Your task to perform on an android device: Open the Play Movies app and select the watchlist tab. Image 0: 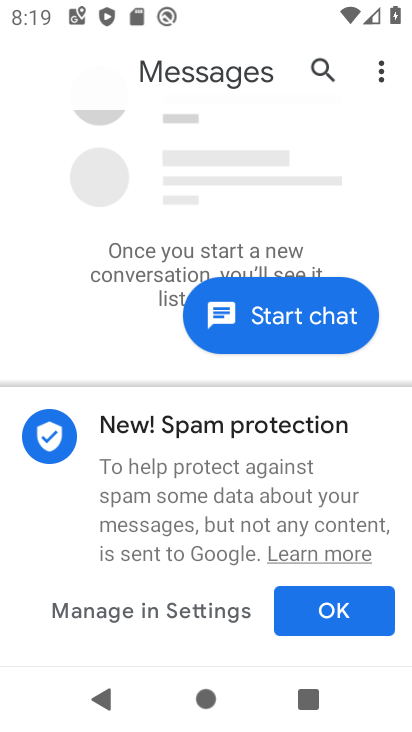
Step 0: press home button
Your task to perform on an android device: Open the Play Movies app and select the watchlist tab. Image 1: 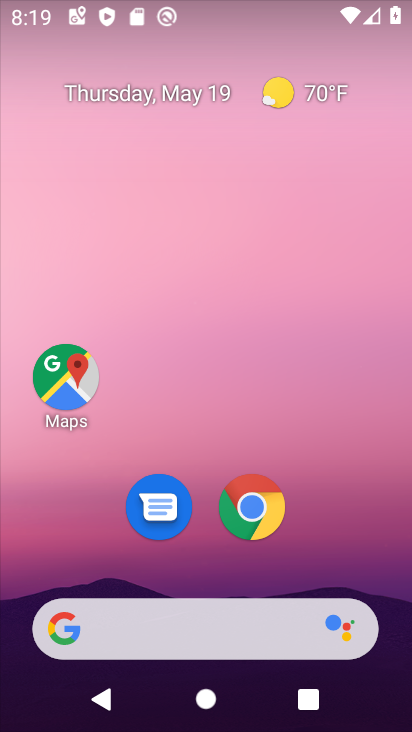
Step 1: drag from (188, 575) to (213, 202)
Your task to perform on an android device: Open the Play Movies app and select the watchlist tab. Image 2: 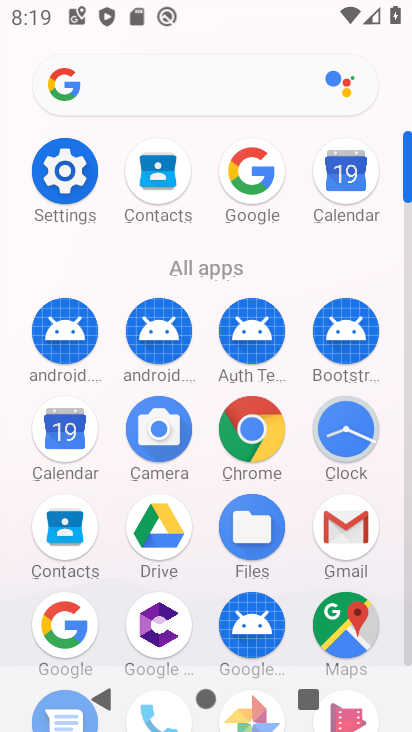
Step 2: drag from (302, 526) to (309, 232)
Your task to perform on an android device: Open the Play Movies app and select the watchlist tab. Image 3: 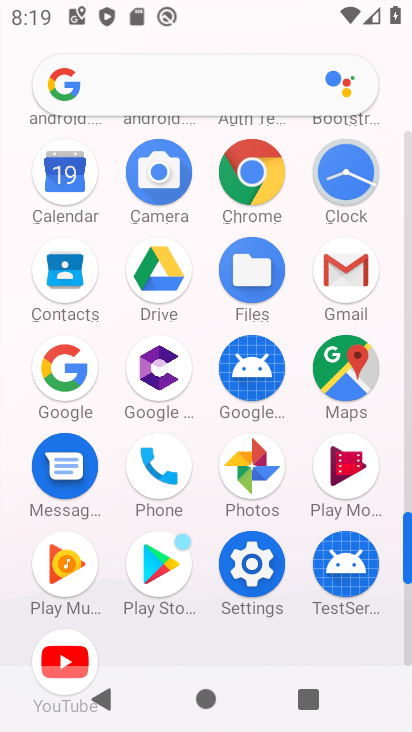
Step 3: click (319, 454)
Your task to perform on an android device: Open the Play Movies app and select the watchlist tab. Image 4: 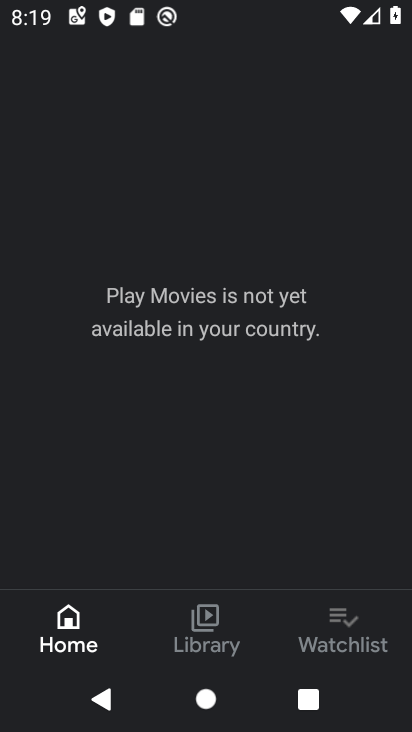
Step 4: click (351, 623)
Your task to perform on an android device: Open the Play Movies app and select the watchlist tab. Image 5: 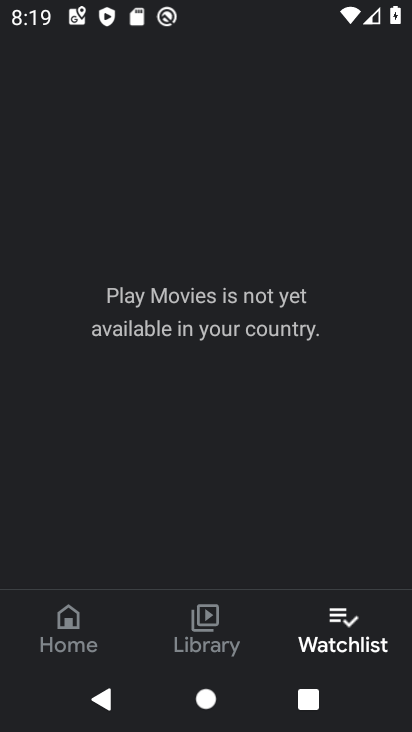
Step 5: task complete